Your task to perform on an android device: make emails show in primary in the gmail app Image 0: 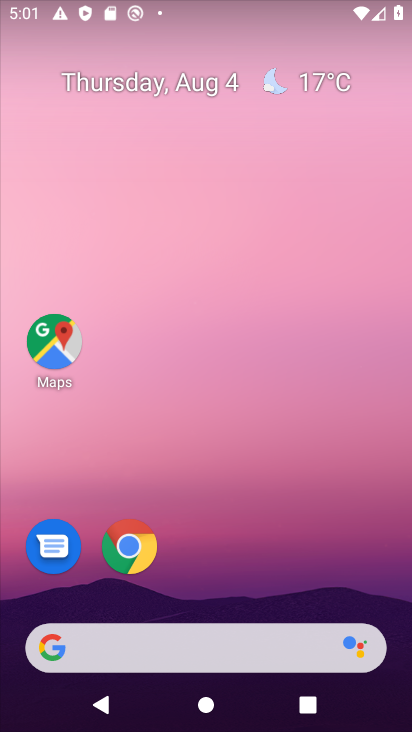
Step 0: click (146, 144)
Your task to perform on an android device: make emails show in primary in the gmail app Image 1: 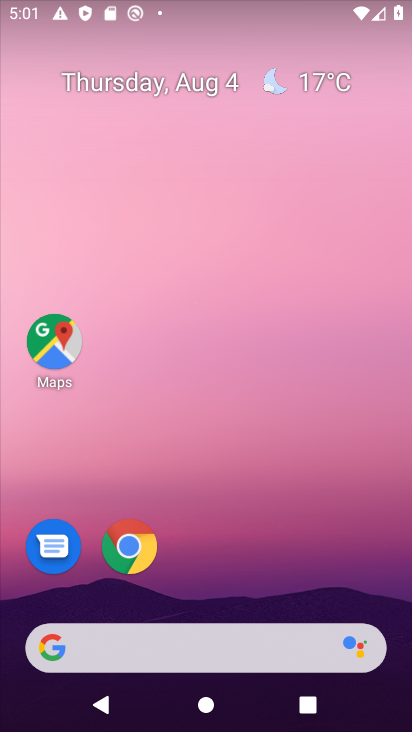
Step 1: click (210, 568)
Your task to perform on an android device: make emails show in primary in the gmail app Image 2: 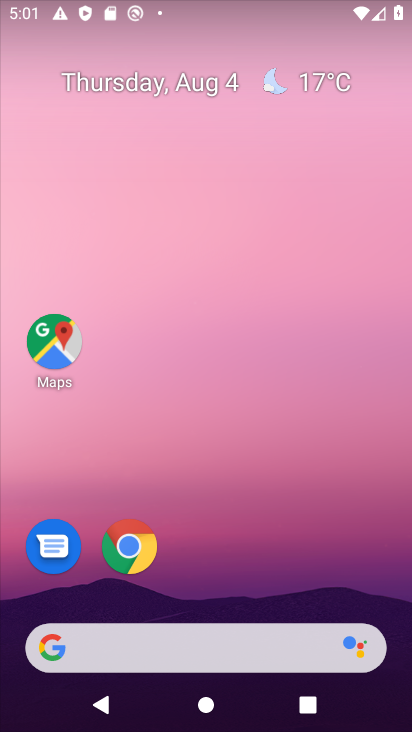
Step 2: drag from (205, 520) to (165, 49)
Your task to perform on an android device: make emails show in primary in the gmail app Image 3: 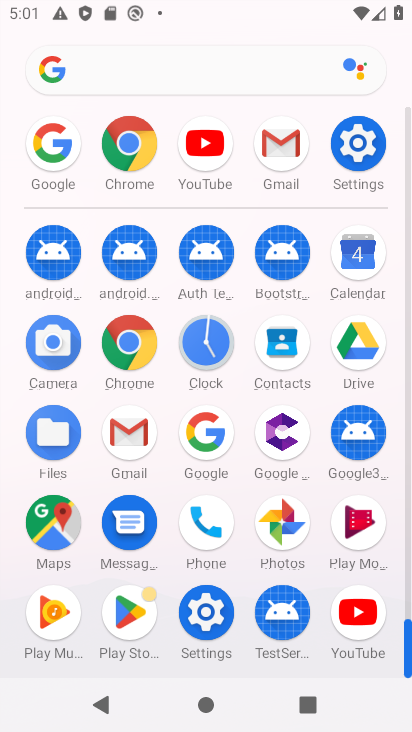
Step 3: click (272, 153)
Your task to perform on an android device: make emails show in primary in the gmail app Image 4: 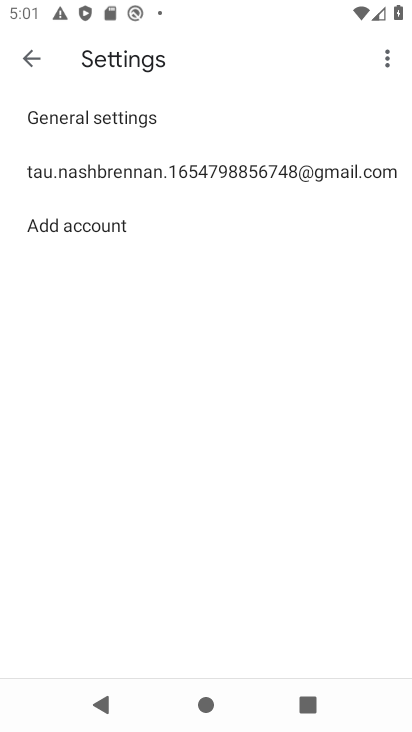
Step 4: click (209, 167)
Your task to perform on an android device: make emails show in primary in the gmail app Image 5: 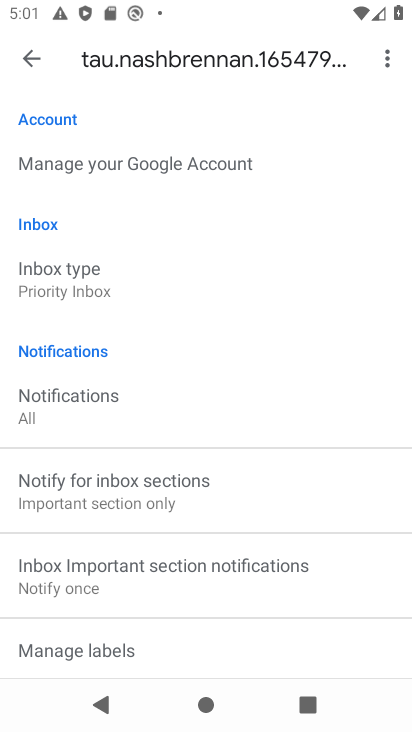
Step 5: task complete